Your task to perform on an android device: Search for seafood restaurants on Google Maps Image 0: 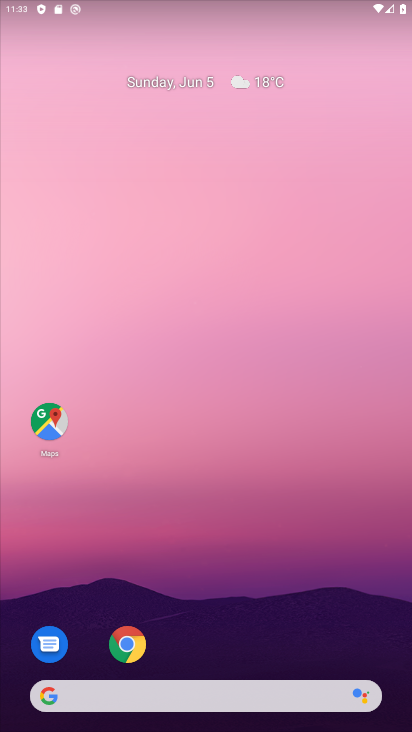
Step 0: drag from (233, 682) to (214, 252)
Your task to perform on an android device: Search for seafood restaurants on Google Maps Image 1: 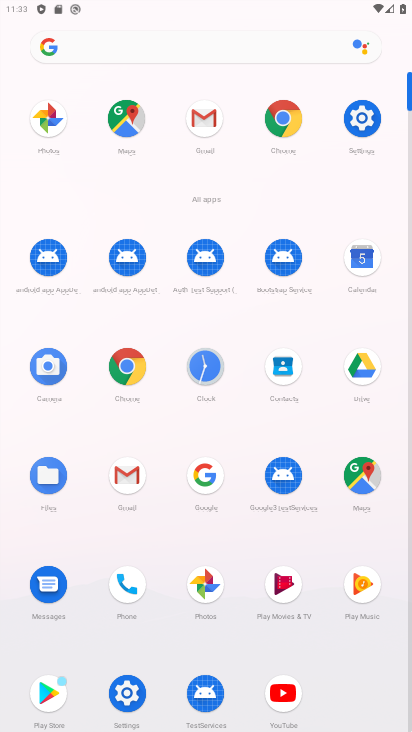
Step 1: click (350, 492)
Your task to perform on an android device: Search for seafood restaurants on Google Maps Image 2: 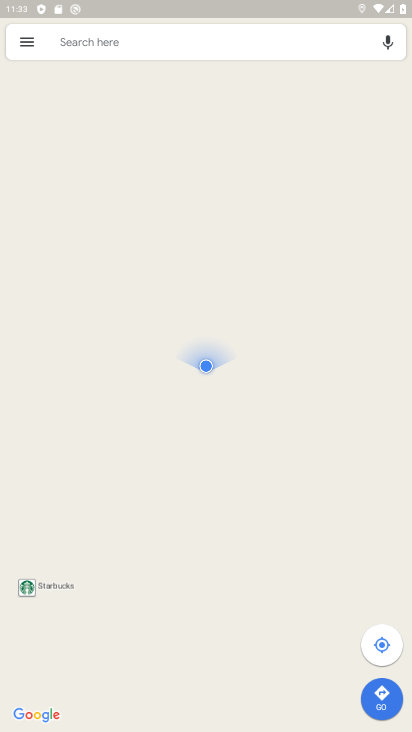
Step 2: click (100, 36)
Your task to perform on an android device: Search for seafood restaurants on Google Maps Image 3: 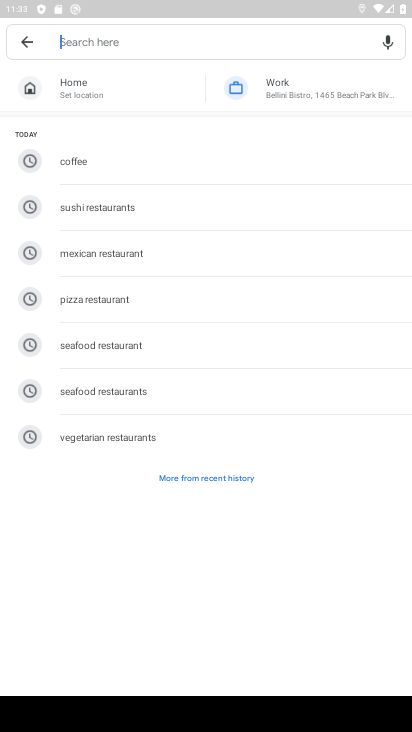
Step 3: drag from (401, 711) to (378, 604)
Your task to perform on an android device: Search for seafood restaurants on Google Maps Image 4: 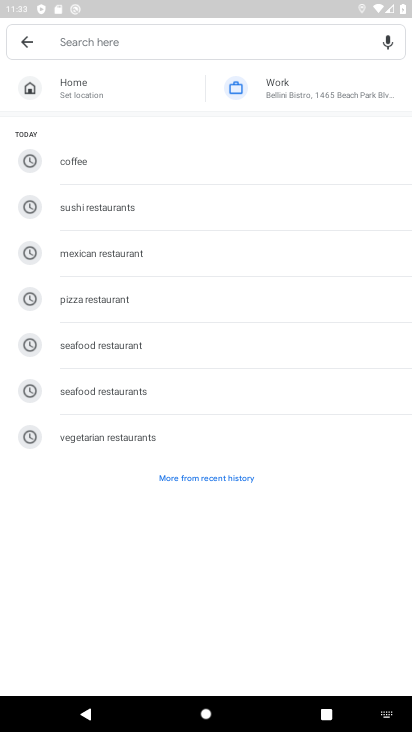
Step 4: click (393, 717)
Your task to perform on an android device: Search for seafood restaurants on Google Maps Image 5: 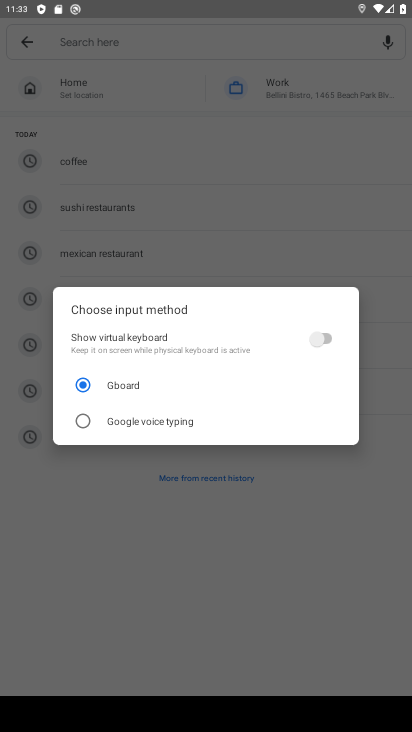
Step 5: click (330, 337)
Your task to perform on an android device: Search for seafood restaurants on Google Maps Image 6: 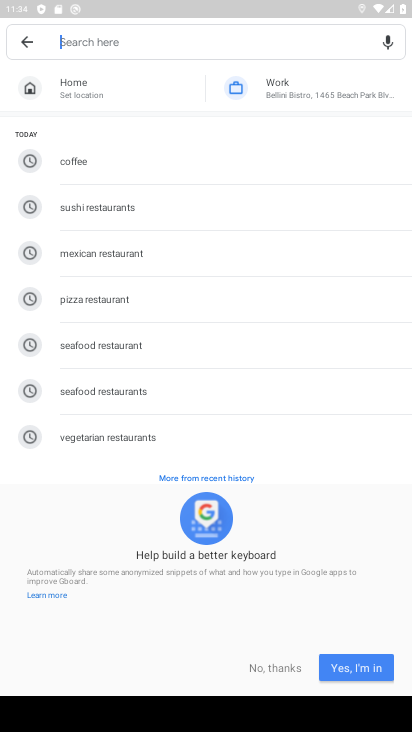
Step 6: click (264, 669)
Your task to perform on an android device: Search for seafood restaurants on Google Maps Image 7: 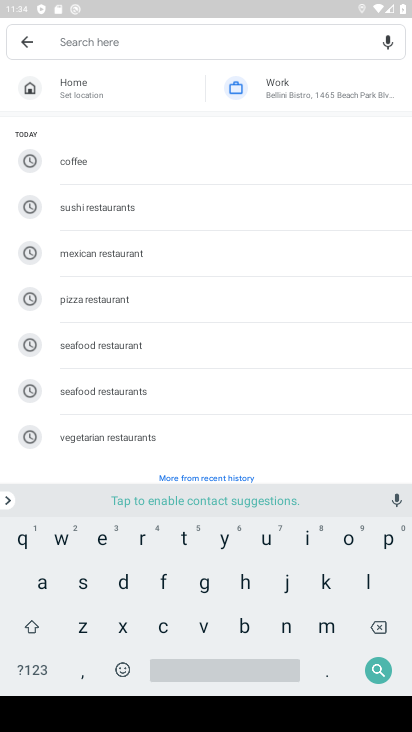
Step 7: click (115, 341)
Your task to perform on an android device: Search for seafood restaurants on Google Maps Image 8: 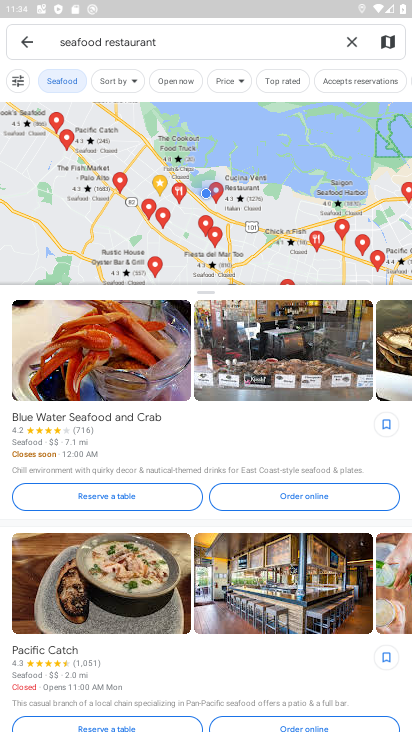
Step 8: task complete